Your task to perform on an android device: Show me productivity apps on the Play Store Image 0: 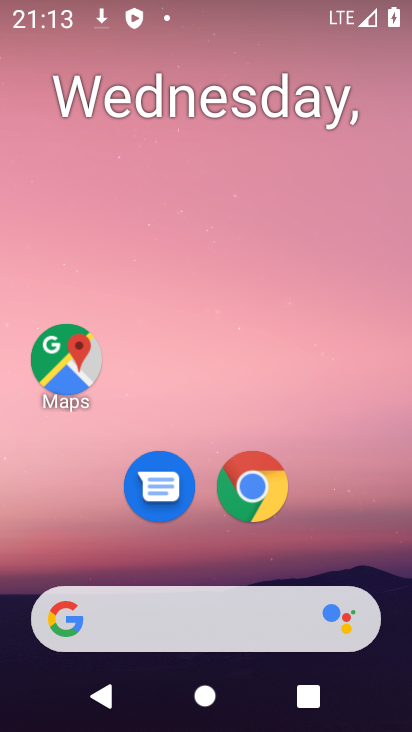
Step 0: drag from (203, 562) to (219, 2)
Your task to perform on an android device: Show me productivity apps on the Play Store Image 1: 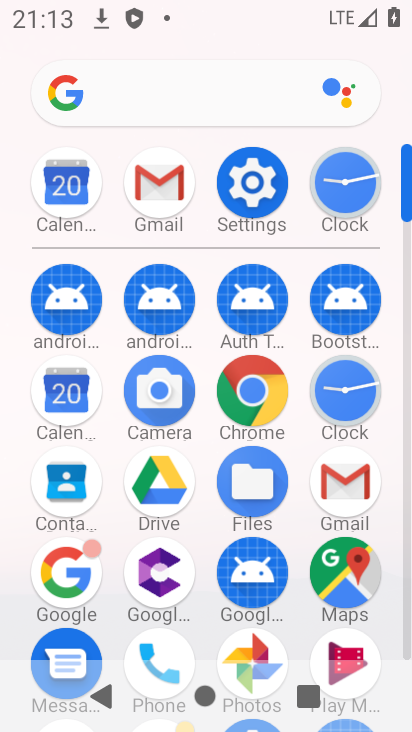
Step 1: drag from (217, 595) to (243, 101)
Your task to perform on an android device: Show me productivity apps on the Play Store Image 2: 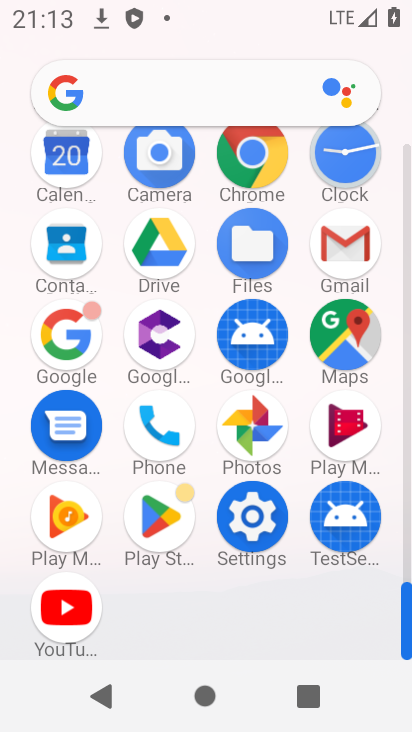
Step 2: click (157, 515)
Your task to perform on an android device: Show me productivity apps on the Play Store Image 3: 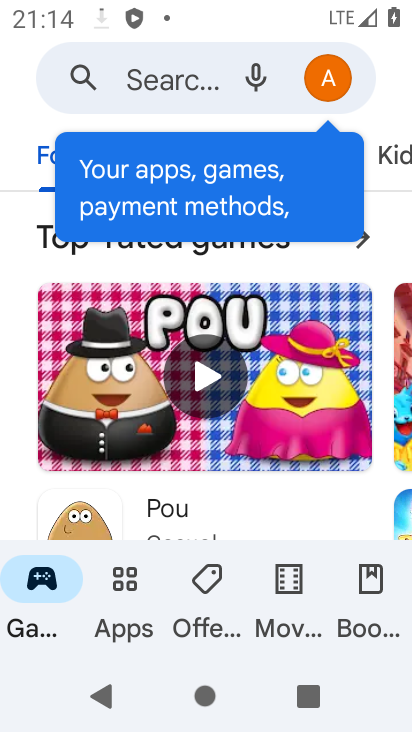
Step 3: click (132, 589)
Your task to perform on an android device: Show me productivity apps on the Play Store Image 4: 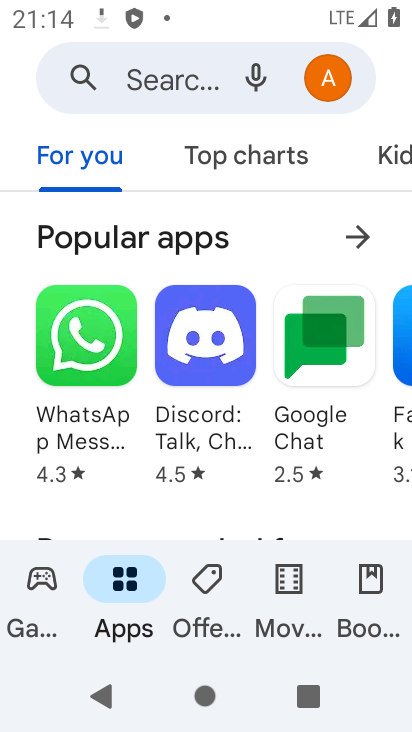
Step 4: drag from (239, 485) to (301, 66)
Your task to perform on an android device: Show me productivity apps on the Play Store Image 5: 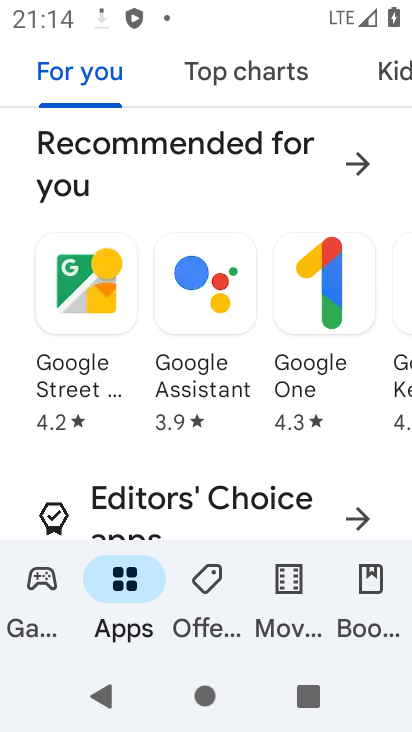
Step 5: click (295, 222)
Your task to perform on an android device: Show me productivity apps on the Play Store Image 6: 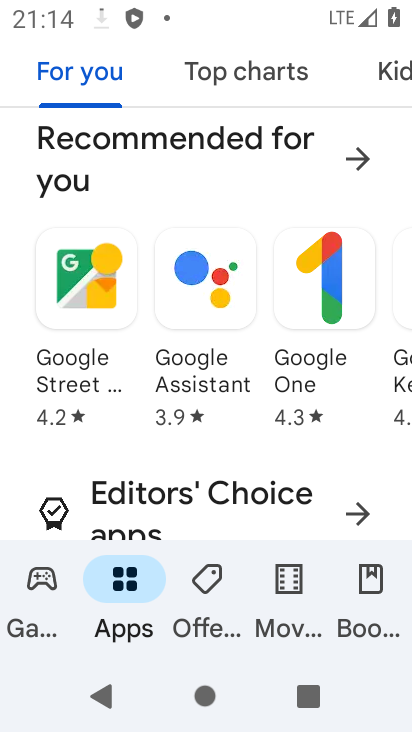
Step 6: drag from (218, 482) to (260, 73)
Your task to perform on an android device: Show me productivity apps on the Play Store Image 7: 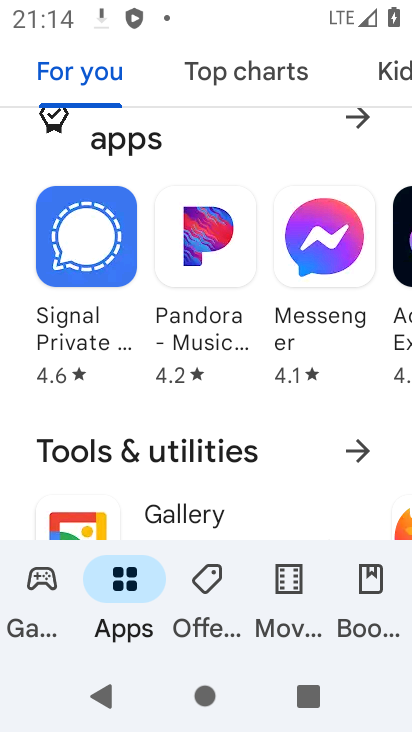
Step 7: drag from (226, 518) to (303, 127)
Your task to perform on an android device: Show me productivity apps on the Play Store Image 8: 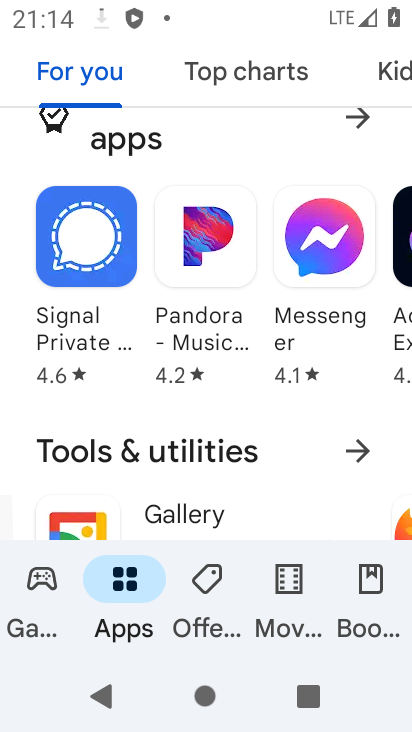
Step 8: drag from (241, 477) to (241, 71)
Your task to perform on an android device: Show me productivity apps on the Play Store Image 9: 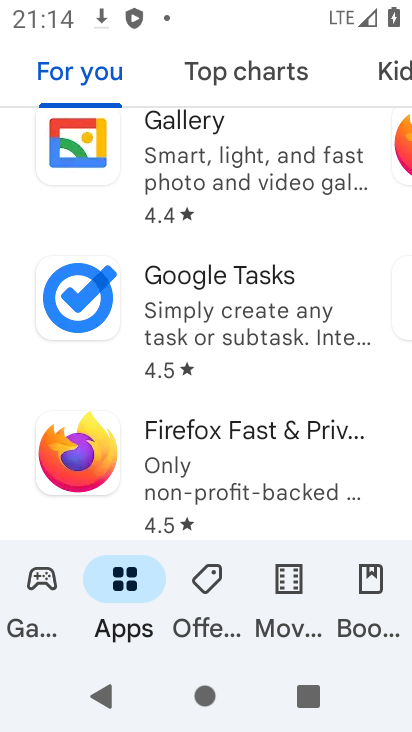
Step 9: drag from (171, 522) to (237, 46)
Your task to perform on an android device: Show me productivity apps on the Play Store Image 10: 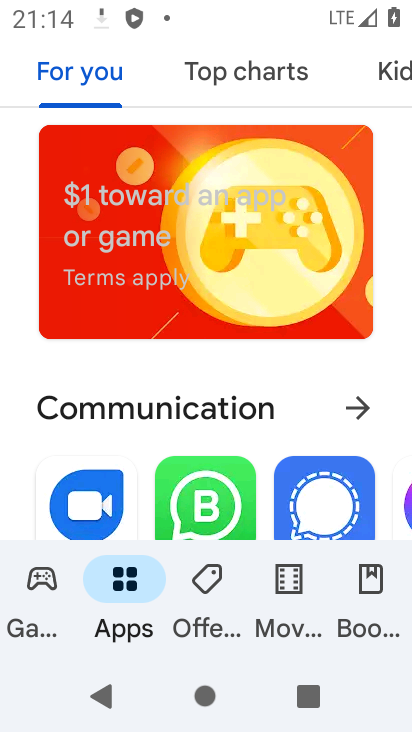
Step 10: drag from (207, 477) to (266, 67)
Your task to perform on an android device: Show me productivity apps on the Play Store Image 11: 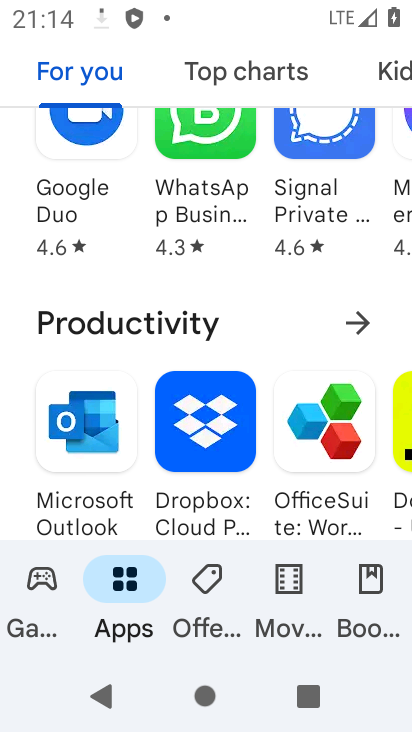
Step 11: click (358, 322)
Your task to perform on an android device: Show me productivity apps on the Play Store Image 12: 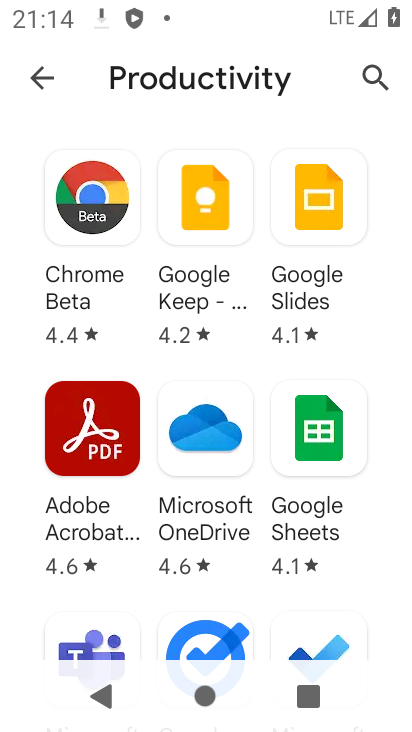
Step 12: task complete